Your task to perform on an android device: Search for sushi restaurants on Maps Image 0: 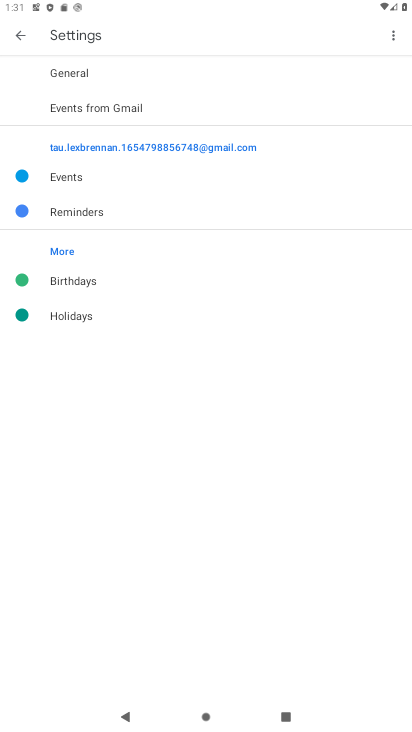
Step 0: press back button
Your task to perform on an android device: Search for sushi restaurants on Maps Image 1: 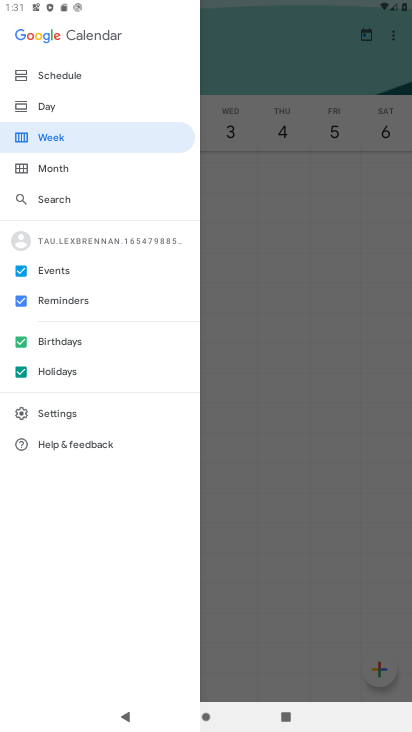
Step 1: press back button
Your task to perform on an android device: Search for sushi restaurants on Maps Image 2: 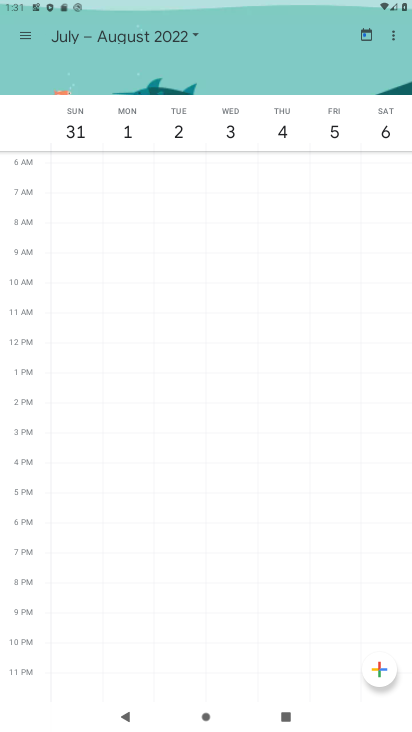
Step 2: press back button
Your task to perform on an android device: Search for sushi restaurants on Maps Image 3: 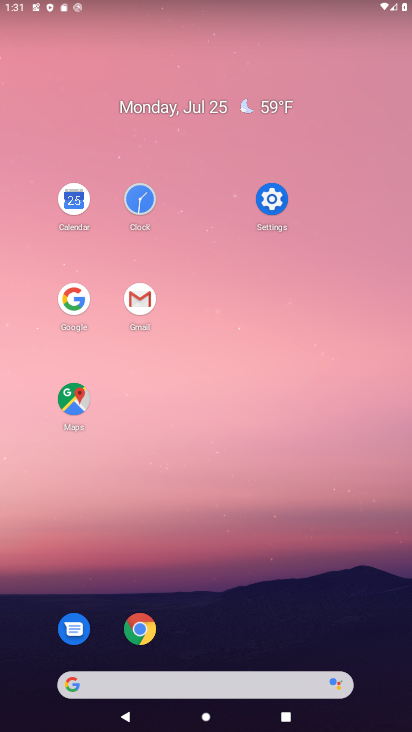
Step 3: click (81, 396)
Your task to perform on an android device: Search for sushi restaurants on Maps Image 4: 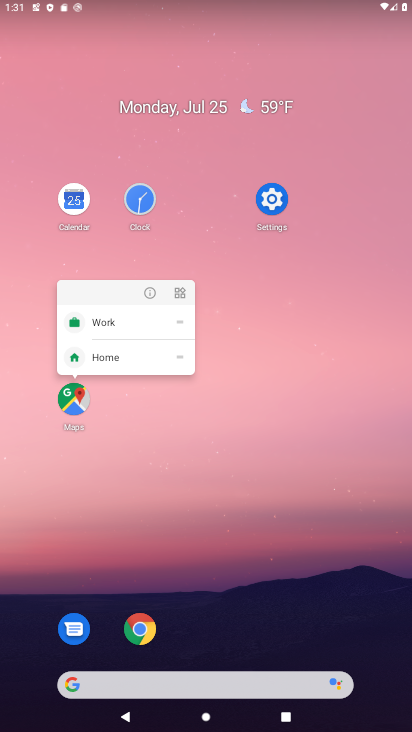
Step 4: click (56, 405)
Your task to perform on an android device: Search for sushi restaurants on Maps Image 5: 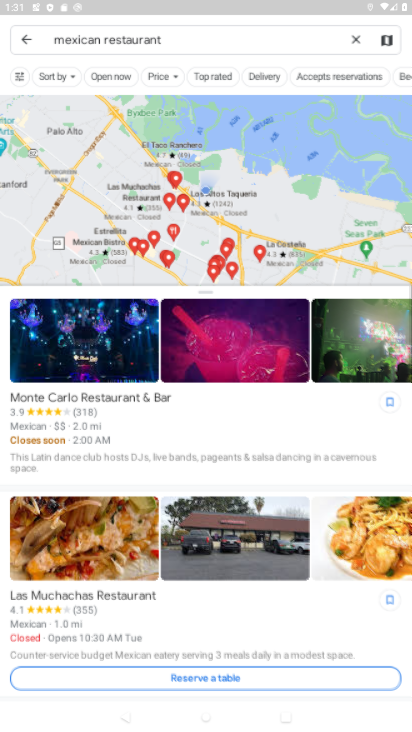
Step 5: click (347, 41)
Your task to perform on an android device: Search for sushi restaurants on Maps Image 6: 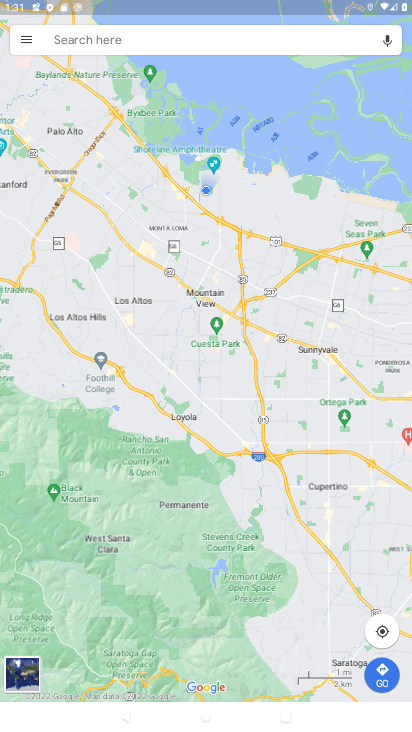
Step 6: click (328, 47)
Your task to perform on an android device: Search for sushi restaurants on Maps Image 7: 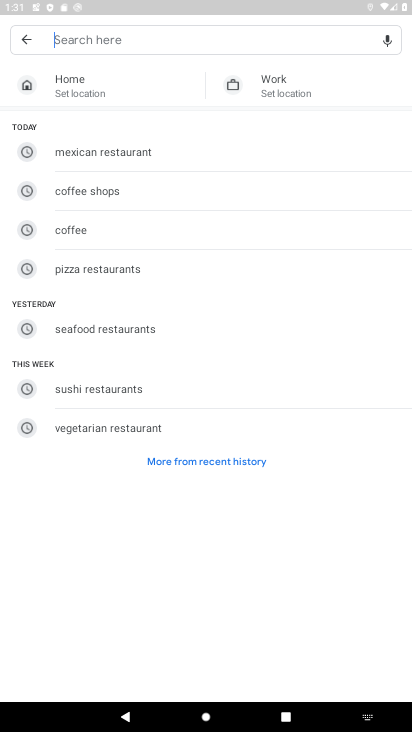
Step 7: click (121, 383)
Your task to perform on an android device: Search for sushi restaurants on Maps Image 8: 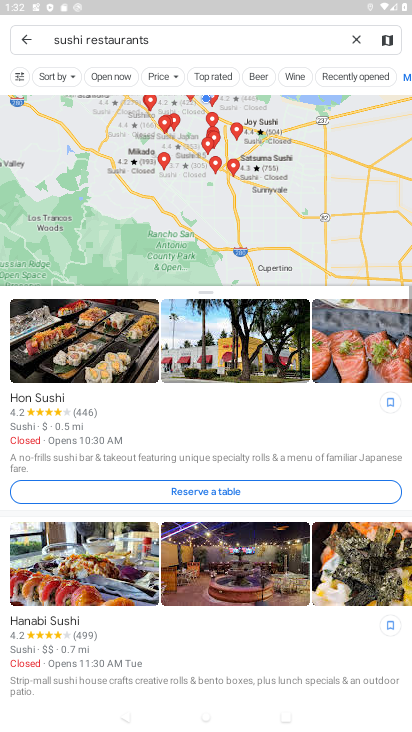
Step 8: task complete